Your task to perform on an android device: Go to accessibility settings Image 0: 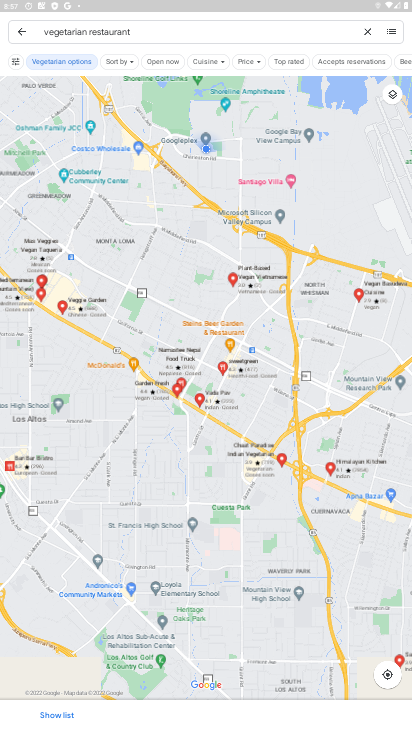
Step 0: click (193, 116)
Your task to perform on an android device: Go to accessibility settings Image 1: 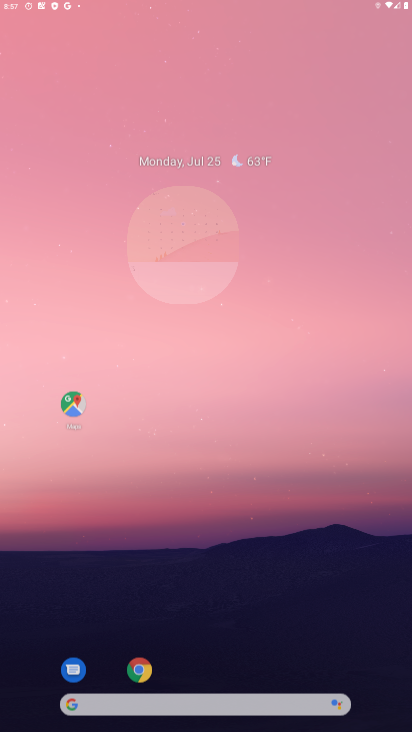
Step 1: drag from (191, 594) to (257, 118)
Your task to perform on an android device: Go to accessibility settings Image 2: 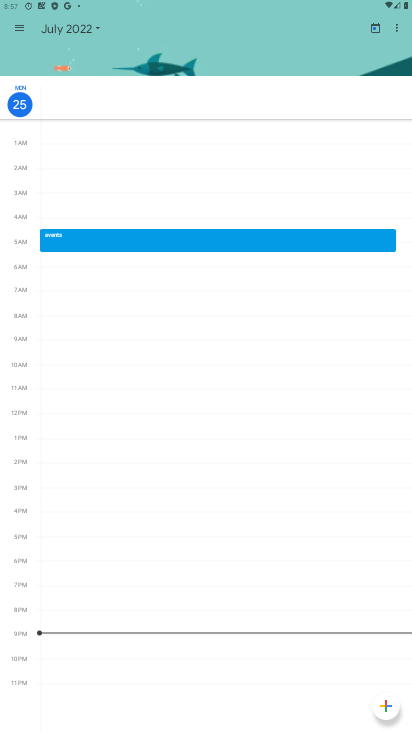
Step 2: drag from (254, 659) to (283, 190)
Your task to perform on an android device: Go to accessibility settings Image 3: 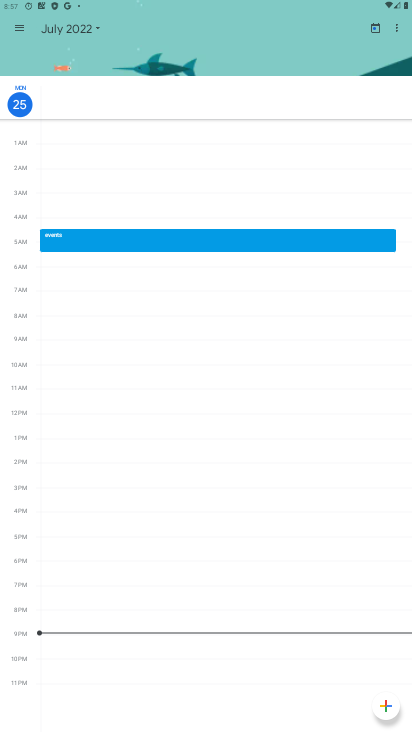
Step 3: press home button
Your task to perform on an android device: Go to accessibility settings Image 4: 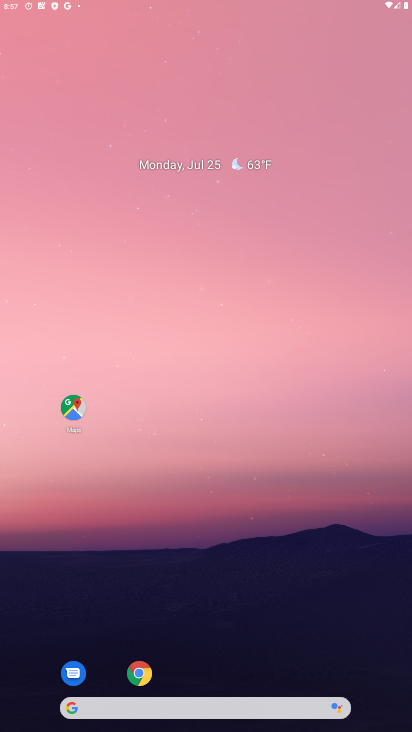
Step 4: drag from (185, 608) to (236, 256)
Your task to perform on an android device: Go to accessibility settings Image 5: 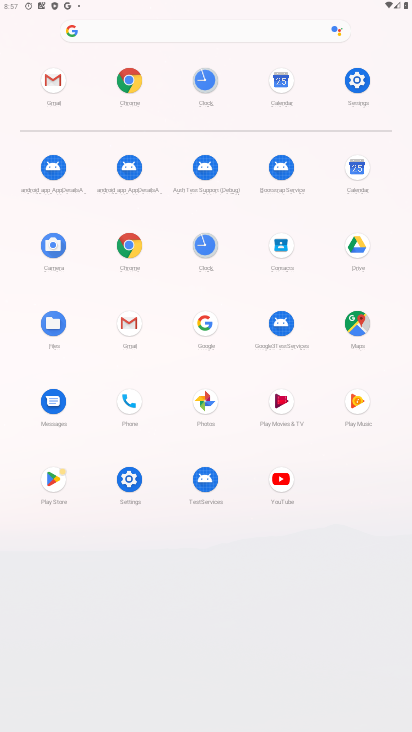
Step 5: click (146, 472)
Your task to perform on an android device: Go to accessibility settings Image 6: 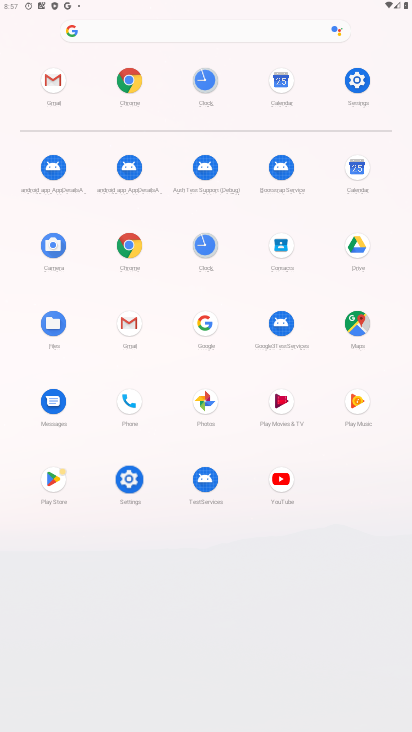
Step 6: click (134, 478)
Your task to perform on an android device: Go to accessibility settings Image 7: 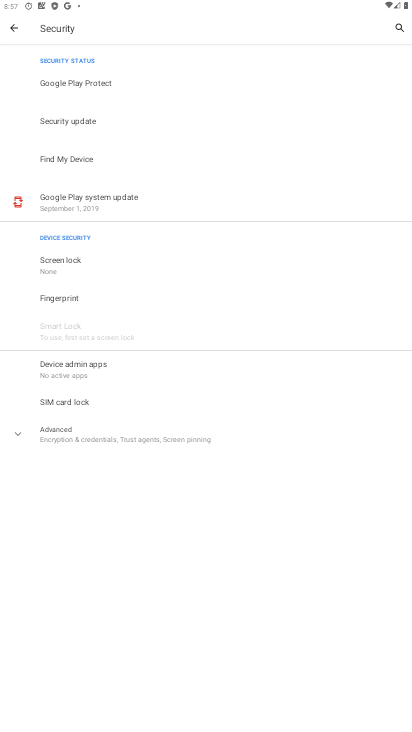
Step 7: drag from (149, 248) to (190, 727)
Your task to perform on an android device: Go to accessibility settings Image 8: 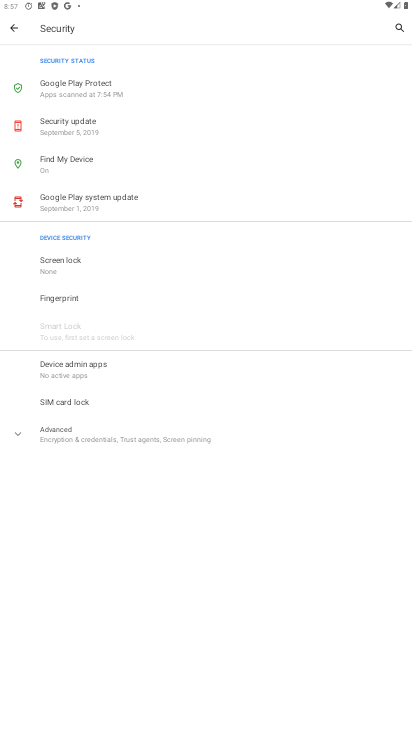
Step 8: click (14, 20)
Your task to perform on an android device: Go to accessibility settings Image 9: 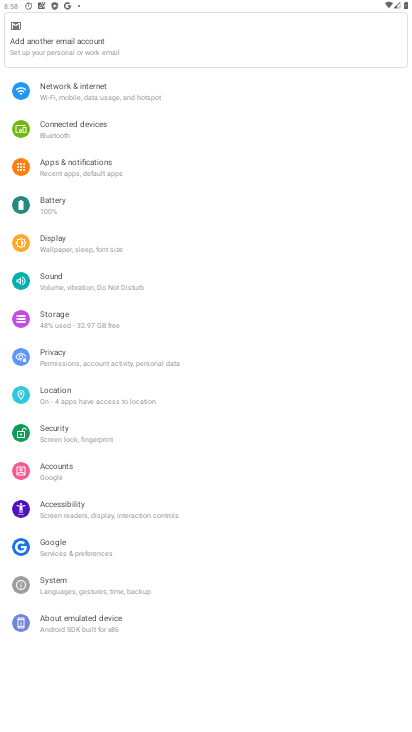
Step 9: drag from (129, 171) to (406, 585)
Your task to perform on an android device: Go to accessibility settings Image 10: 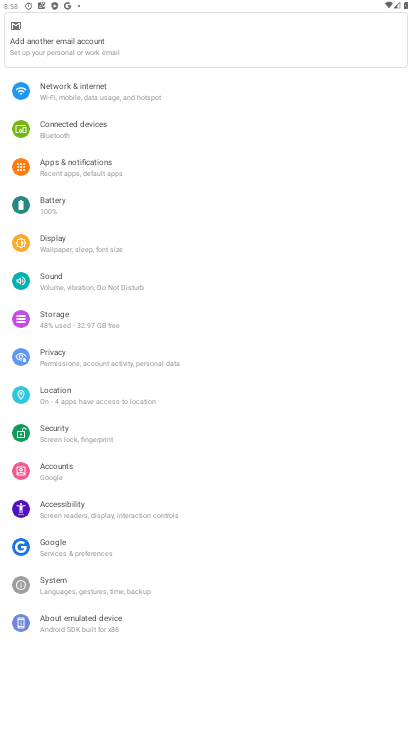
Step 10: click (91, 506)
Your task to perform on an android device: Go to accessibility settings Image 11: 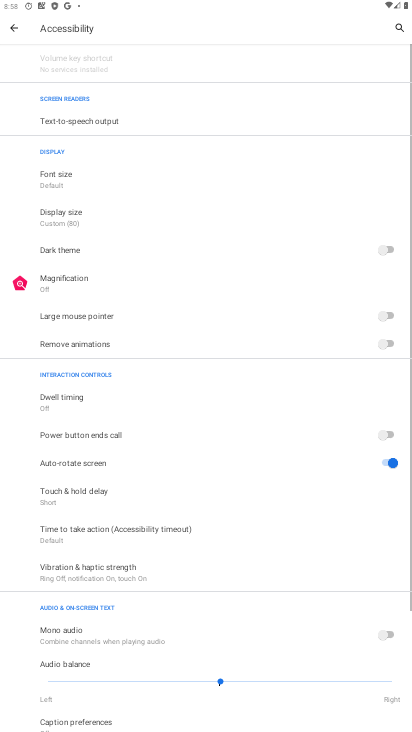
Step 11: task complete